Your task to perform on an android device: turn on wifi Image 0: 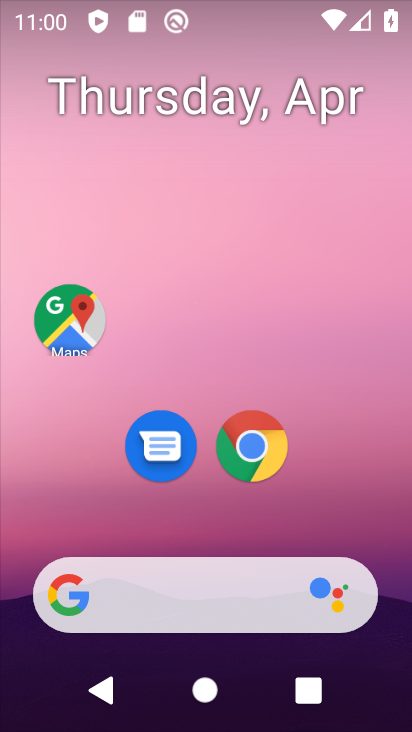
Step 0: drag from (195, 538) to (259, 218)
Your task to perform on an android device: turn on wifi Image 1: 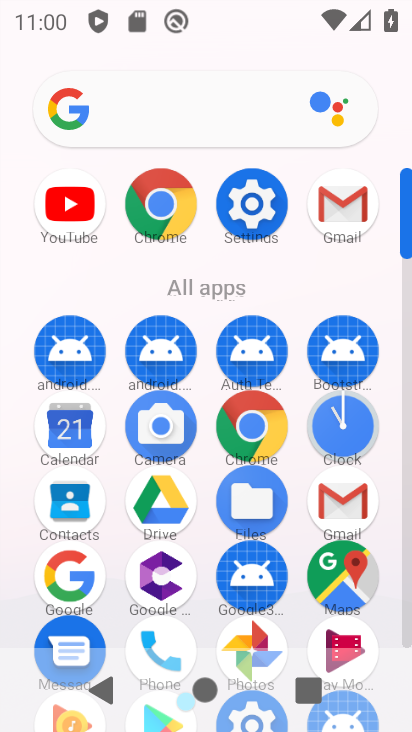
Step 1: click (249, 203)
Your task to perform on an android device: turn on wifi Image 2: 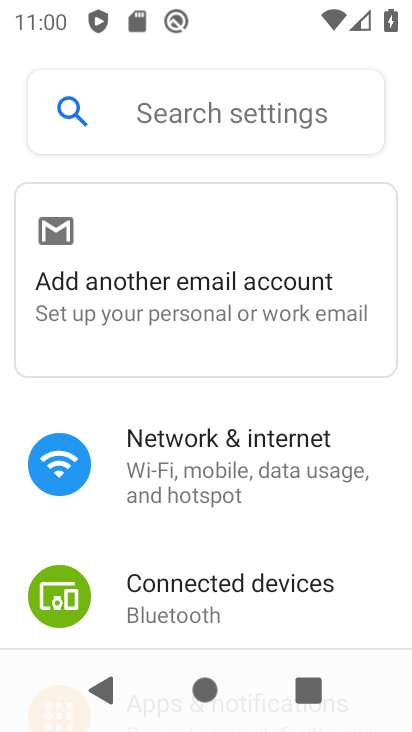
Step 2: drag from (212, 449) to (238, 209)
Your task to perform on an android device: turn on wifi Image 3: 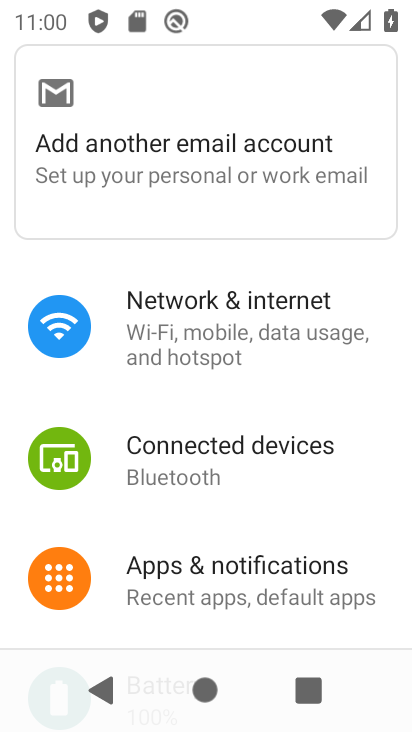
Step 3: click (201, 316)
Your task to perform on an android device: turn on wifi Image 4: 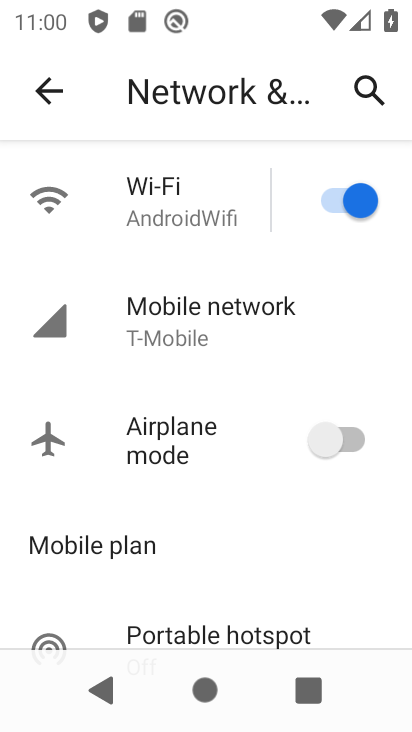
Step 4: click (239, 205)
Your task to perform on an android device: turn on wifi Image 5: 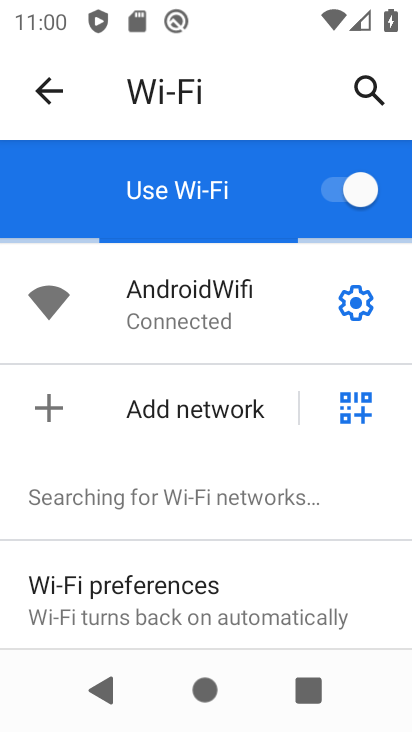
Step 5: task complete